Your task to perform on an android device: turn on priority inbox in the gmail app Image 0: 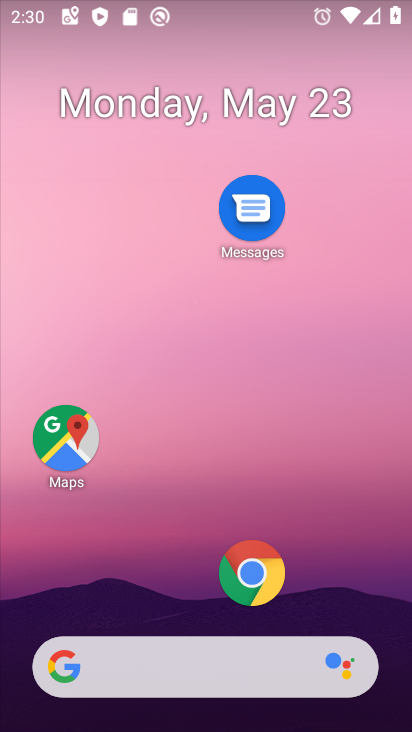
Step 0: drag from (210, 535) to (271, 2)
Your task to perform on an android device: turn on priority inbox in the gmail app Image 1: 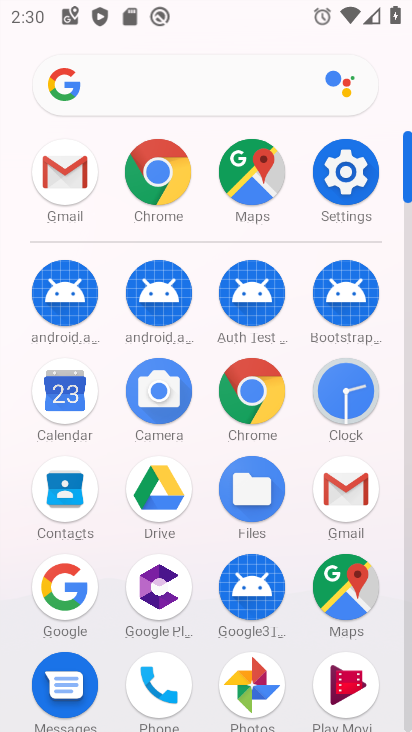
Step 1: click (355, 557)
Your task to perform on an android device: turn on priority inbox in the gmail app Image 2: 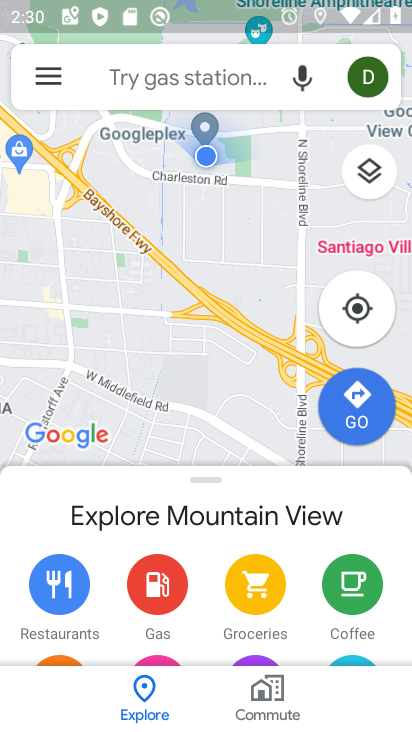
Step 2: press home button
Your task to perform on an android device: turn on priority inbox in the gmail app Image 3: 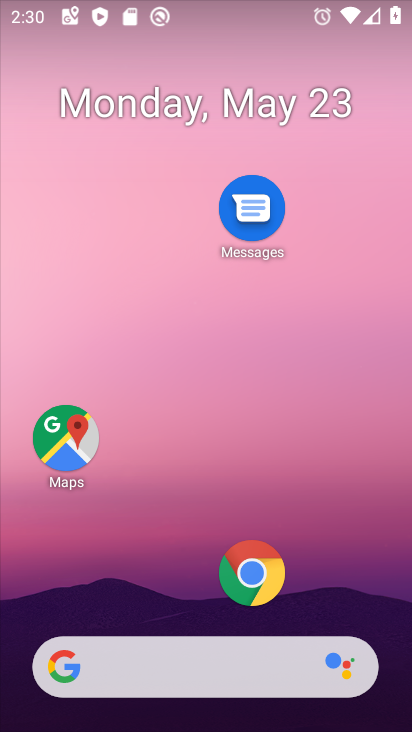
Step 3: drag from (284, 632) to (334, 37)
Your task to perform on an android device: turn on priority inbox in the gmail app Image 4: 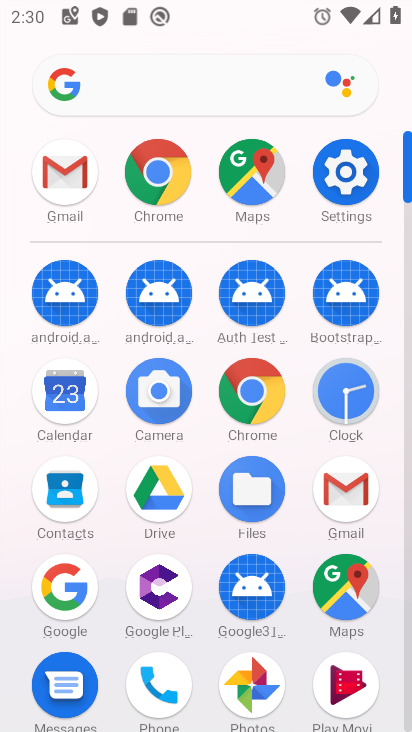
Step 4: click (357, 481)
Your task to perform on an android device: turn on priority inbox in the gmail app Image 5: 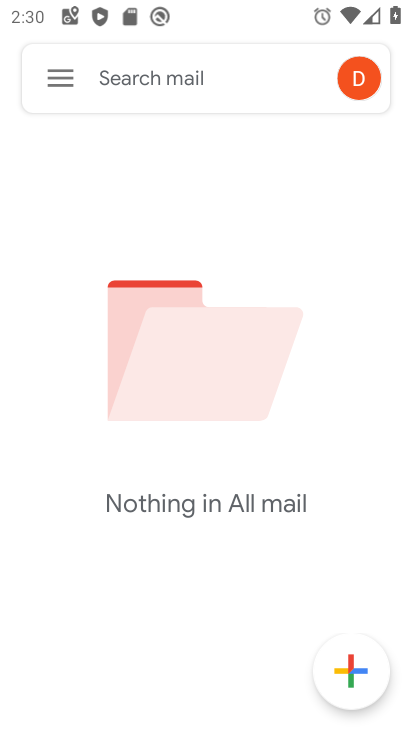
Step 5: click (47, 73)
Your task to perform on an android device: turn on priority inbox in the gmail app Image 6: 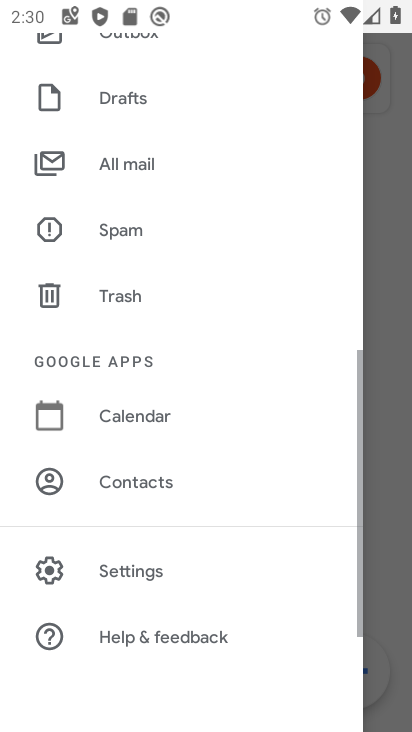
Step 6: click (159, 589)
Your task to perform on an android device: turn on priority inbox in the gmail app Image 7: 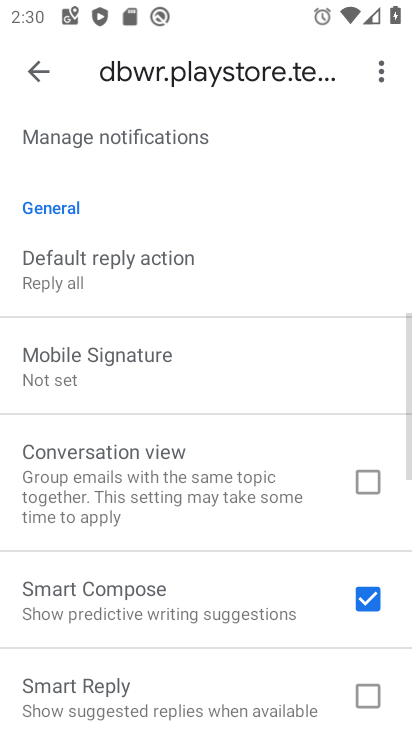
Step 7: drag from (172, 176) to (209, 665)
Your task to perform on an android device: turn on priority inbox in the gmail app Image 8: 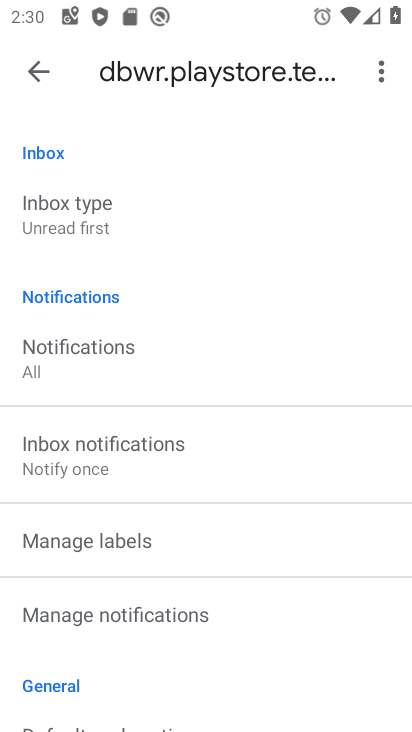
Step 8: click (98, 208)
Your task to perform on an android device: turn on priority inbox in the gmail app Image 9: 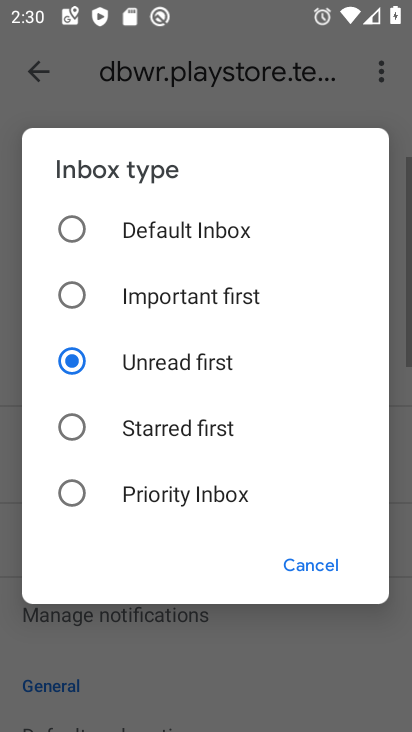
Step 9: click (167, 499)
Your task to perform on an android device: turn on priority inbox in the gmail app Image 10: 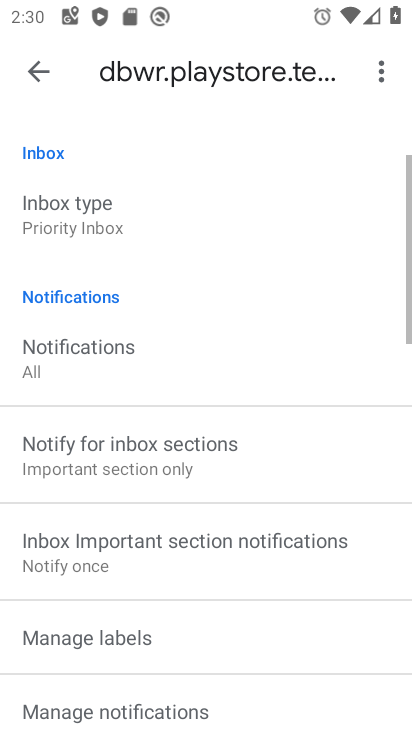
Step 10: task complete